Your task to perform on an android device: Go to display settings Image 0: 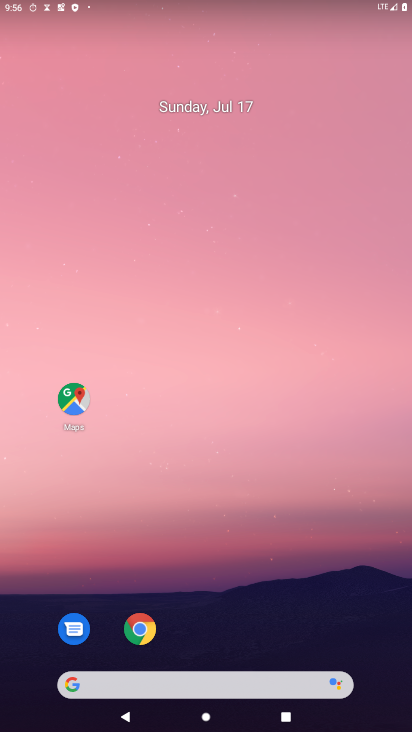
Step 0: drag from (236, 693) to (250, 38)
Your task to perform on an android device: Go to display settings Image 1: 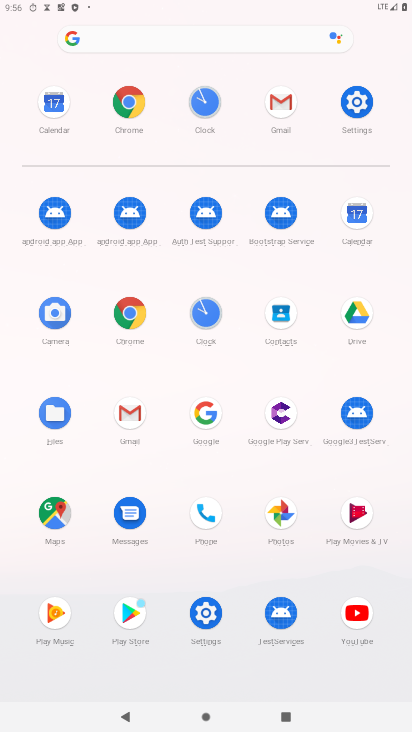
Step 1: click (359, 104)
Your task to perform on an android device: Go to display settings Image 2: 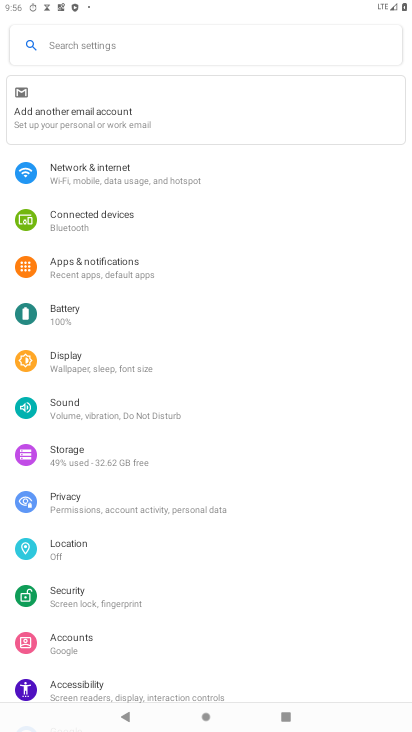
Step 2: click (66, 358)
Your task to perform on an android device: Go to display settings Image 3: 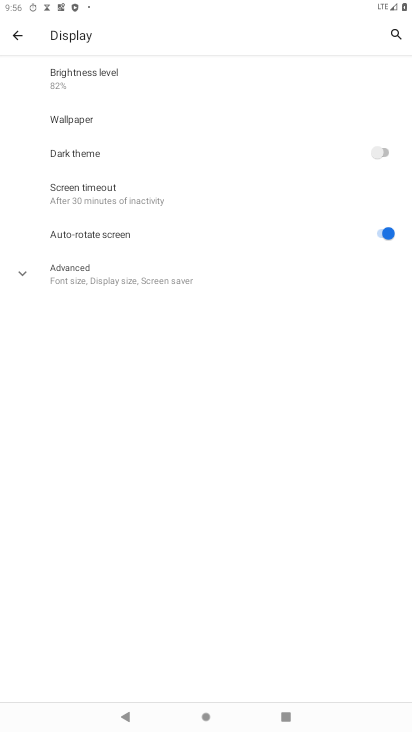
Step 3: task complete